Your task to perform on an android device: change text size in settings app Image 0: 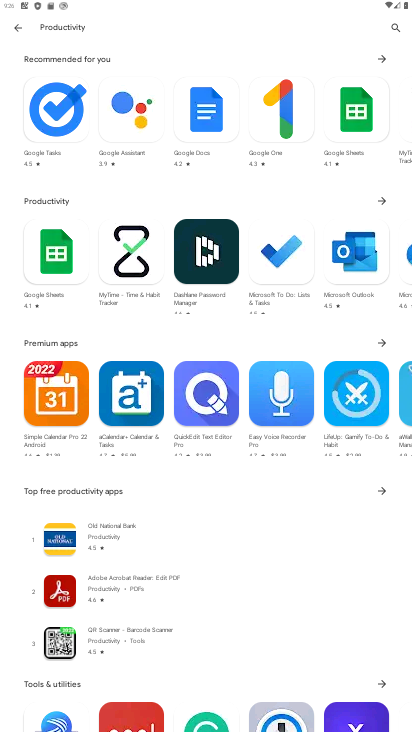
Step 0: press home button
Your task to perform on an android device: change text size in settings app Image 1: 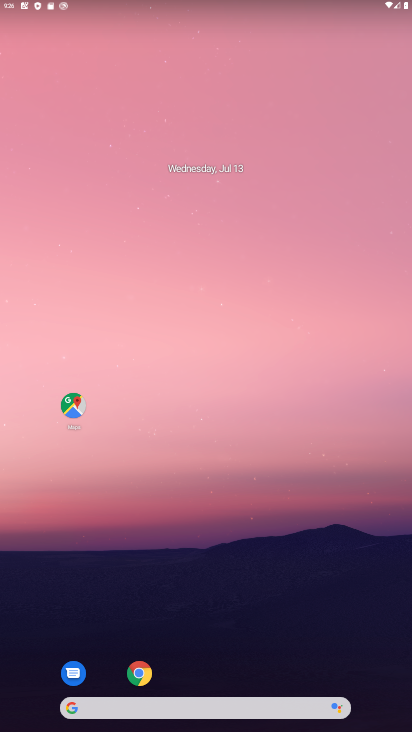
Step 1: drag from (189, 667) to (182, 14)
Your task to perform on an android device: change text size in settings app Image 2: 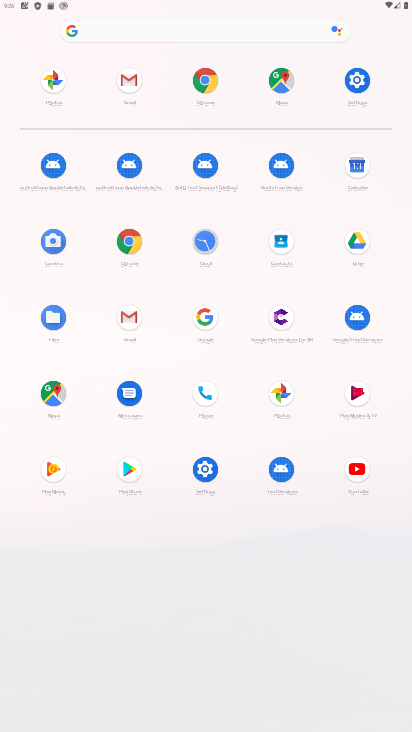
Step 2: click (354, 75)
Your task to perform on an android device: change text size in settings app Image 3: 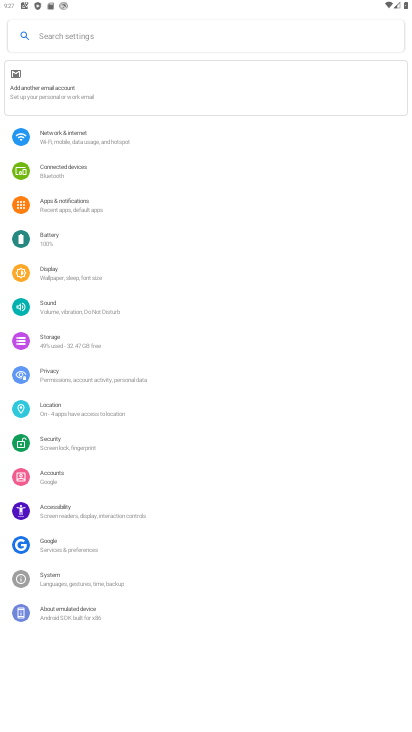
Step 3: click (64, 280)
Your task to perform on an android device: change text size in settings app Image 4: 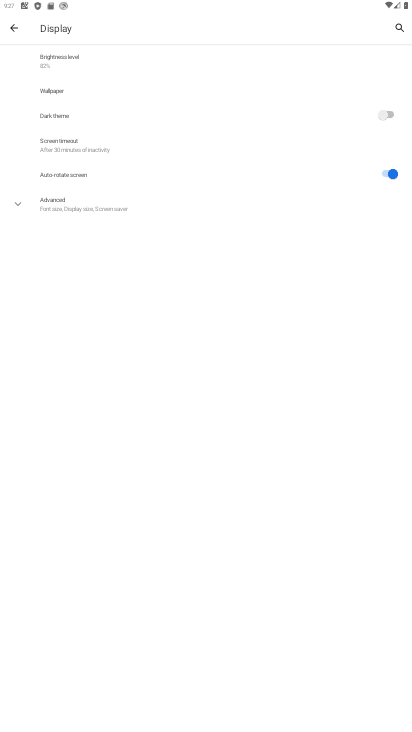
Step 4: click (99, 202)
Your task to perform on an android device: change text size in settings app Image 5: 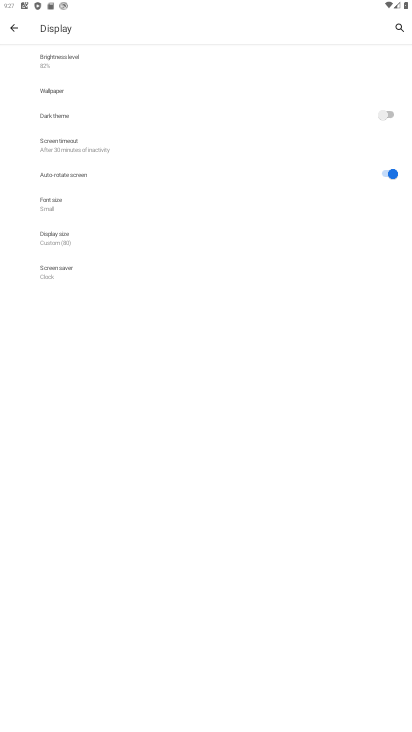
Step 5: click (99, 202)
Your task to perform on an android device: change text size in settings app Image 6: 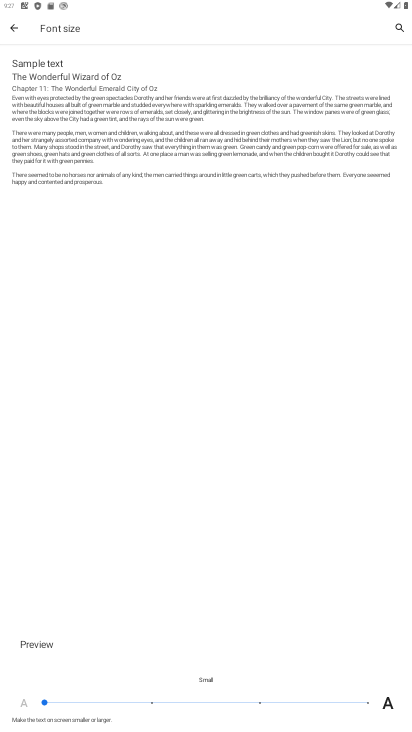
Step 6: click (148, 693)
Your task to perform on an android device: change text size in settings app Image 7: 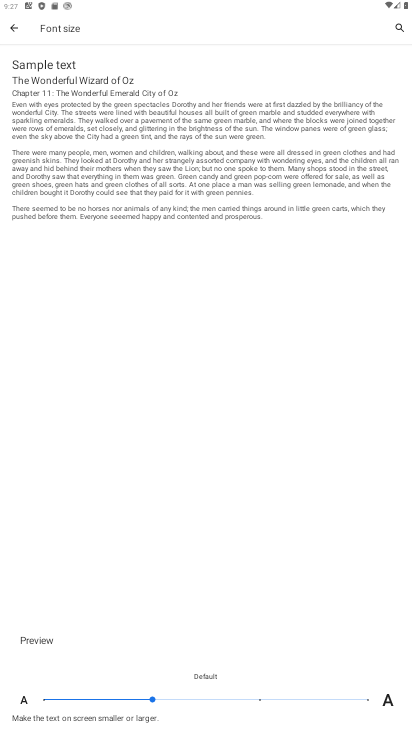
Step 7: click (266, 701)
Your task to perform on an android device: change text size in settings app Image 8: 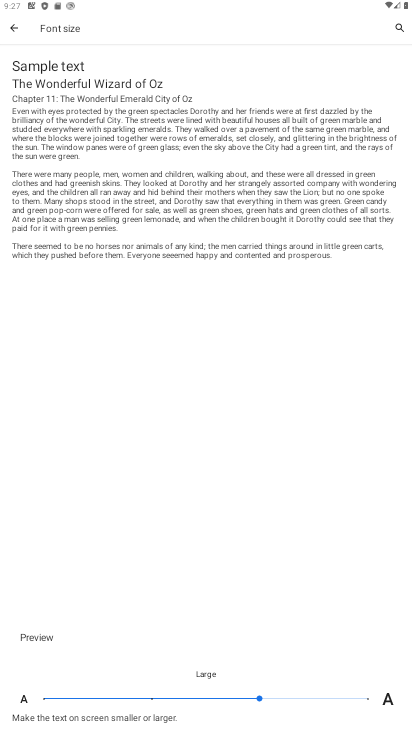
Step 8: click (365, 706)
Your task to perform on an android device: change text size in settings app Image 9: 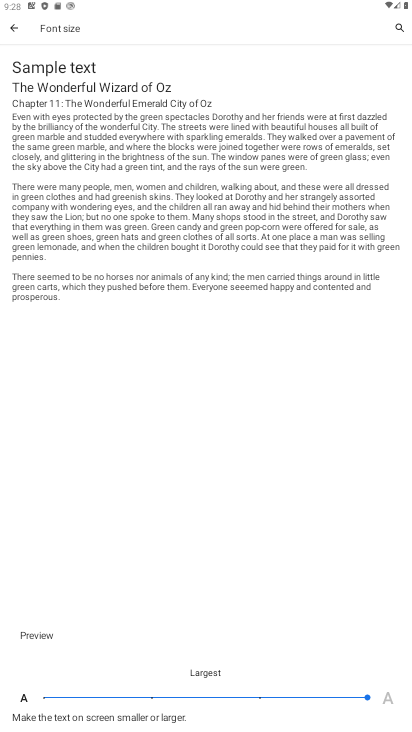
Step 9: task complete